Your task to perform on an android device: Open notification settings Image 0: 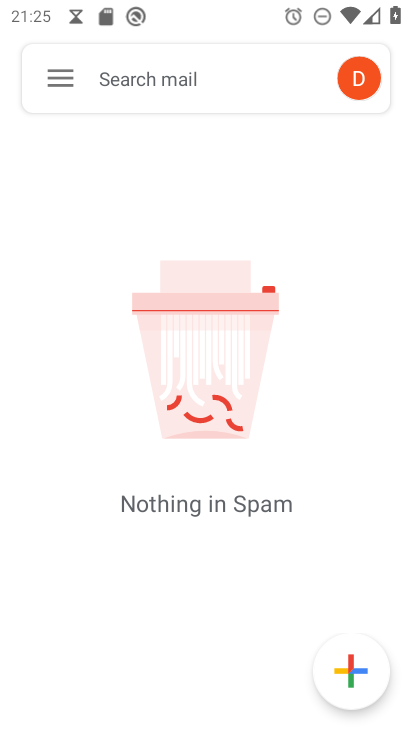
Step 0: press home button
Your task to perform on an android device: Open notification settings Image 1: 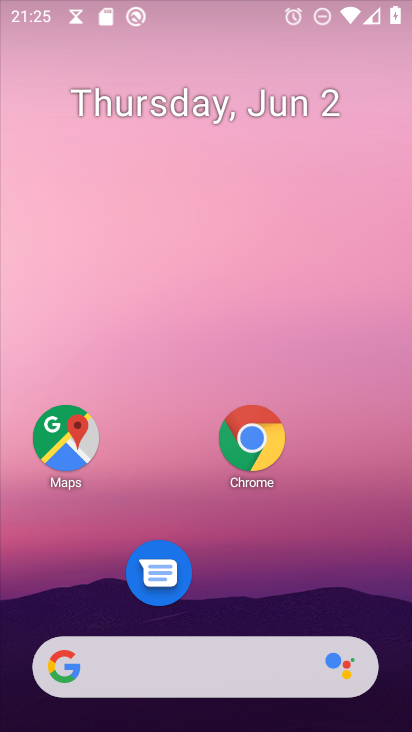
Step 1: click (406, 603)
Your task to perform on an android device: Open notification settings Image 2: 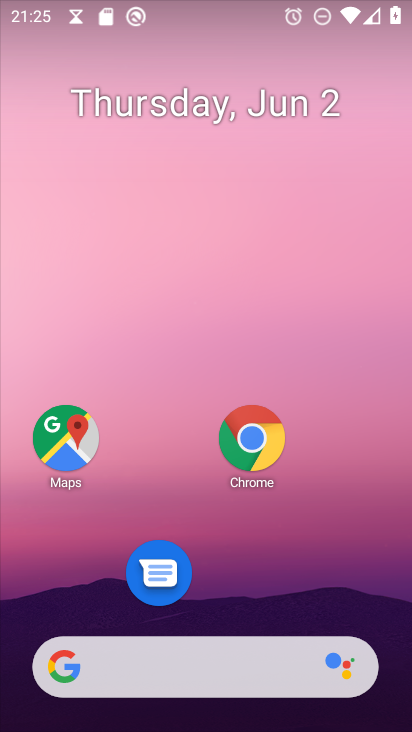
Step 2: drag from (187, 670) to (296, 94)
Your task to perform on an android device: Open notification settings Image 3: 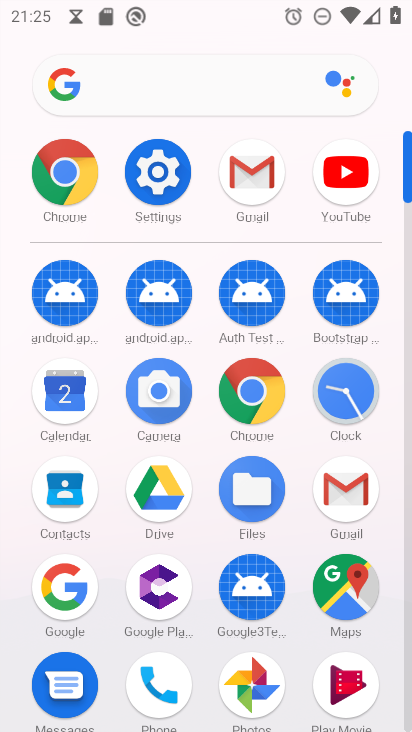
Step 3: click (158, 183)
Your task to perform on an android device: Open notification settings Image 4: 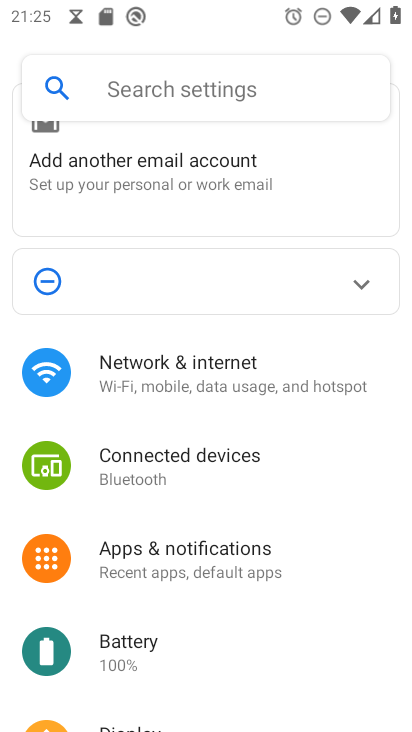
Step 4: click (189, 565)
Your task to perform on an android device: Open notification settings Image 5: 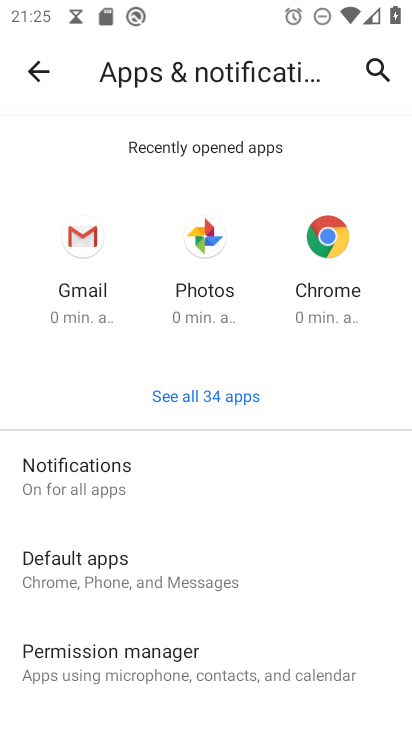
Step 5: click (107, 470)
Your task to perform on an android device: Open notification settings Image 6: 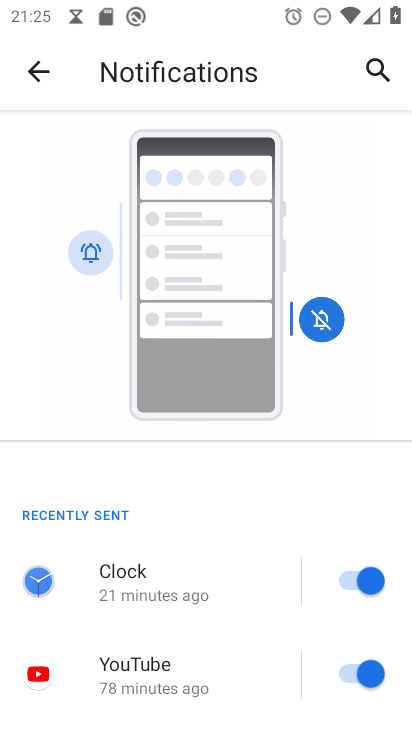
Step 6: task complete